Your task to perform on an android device: Open ESPN.com Image 0: 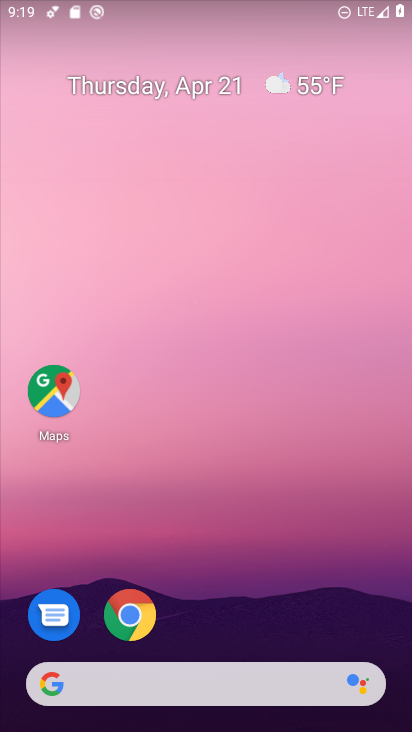
Step 0: drag from (267, 596) to (297, 81)
Your task to perform on an android device: Open ESPN.com Image 1: 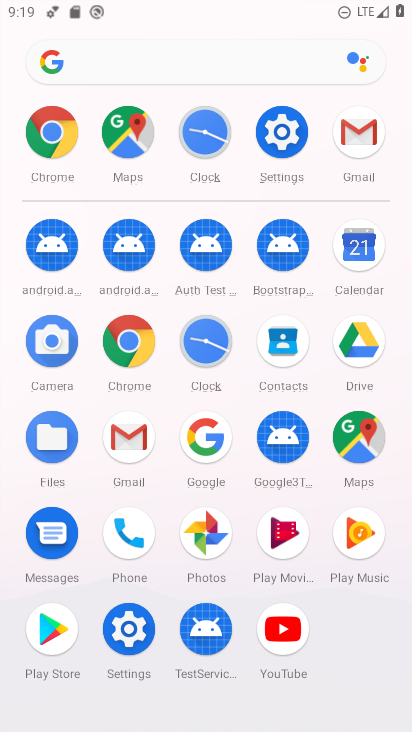
Step 1: click (56, 151)
Your task to perform on an android device: Open ESPN.com Image 2: 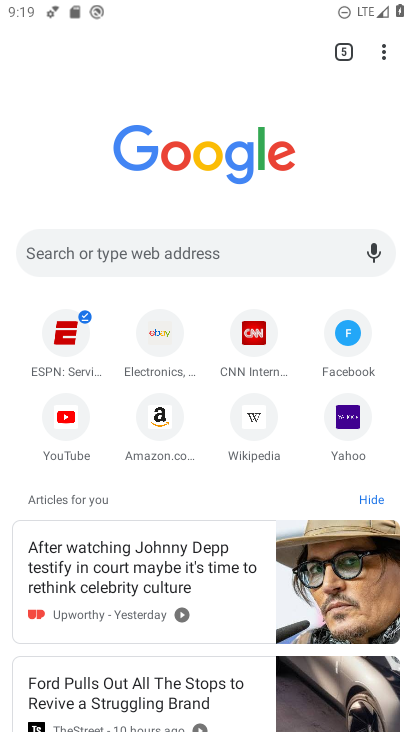
Step 2: click (66, 330)
Your task to perform on an android device: Open ESPN.com Image 3: 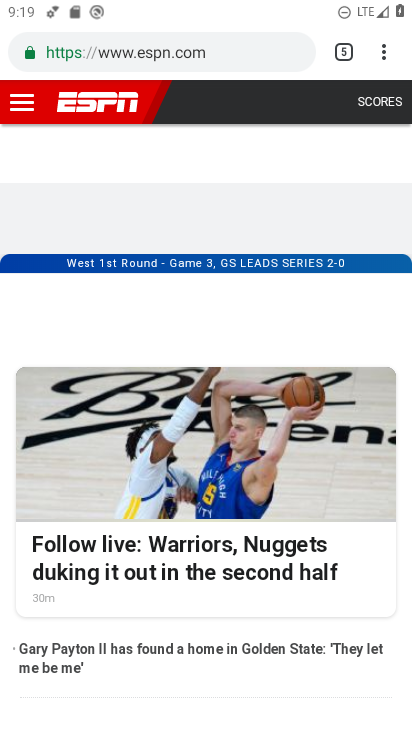
Step 3: task complete